Your task to perform on an android device: delete a single message in the gmail app Image 0: 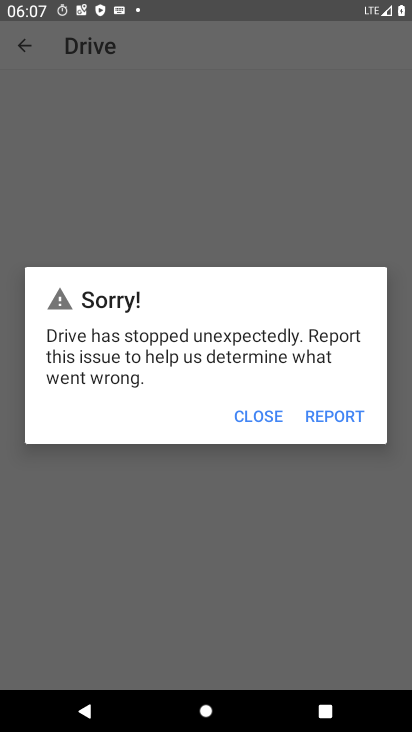
Step 0: press home button
Your task to perform on an android device: delete a single message in the gmail app Image 1: 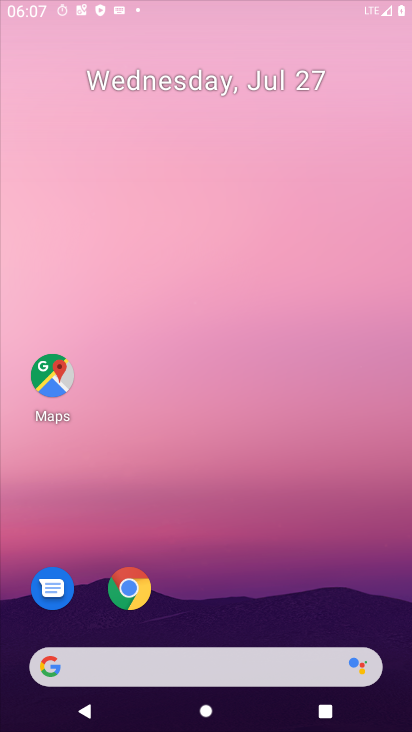
Step 1: drag from (331, 662) to (371, 84)
Your task to perform on an android device: delete a single message in the gmail app Image 2: 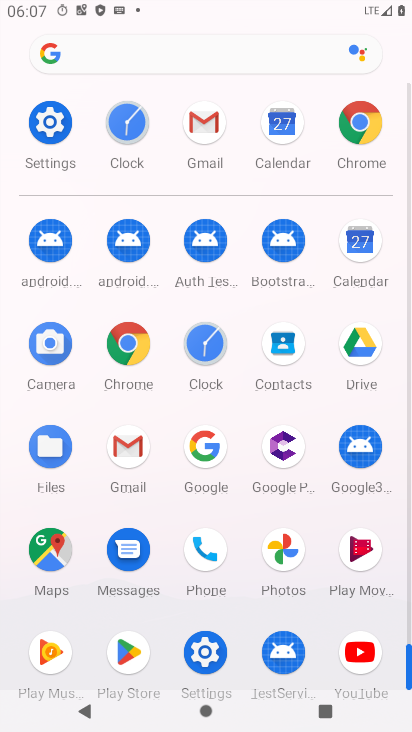
Step 2: click (132, 445)
Your task to perform on an android device: delete a single message in the gmail app Image 3: 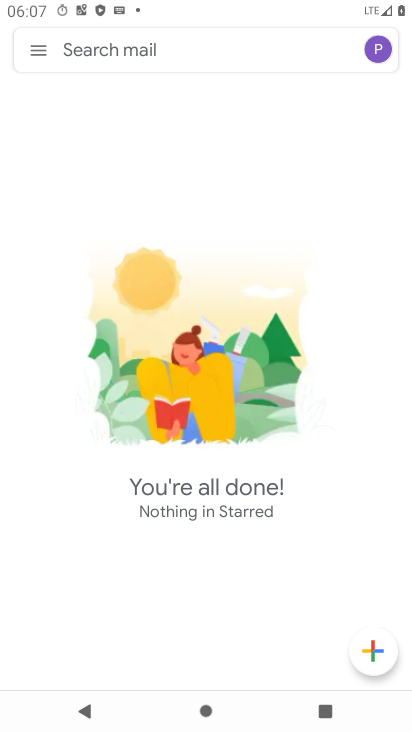
Step 3: click (43, 45)
Your task to perform on an android device: delete a single message in the gmail app Image 4: 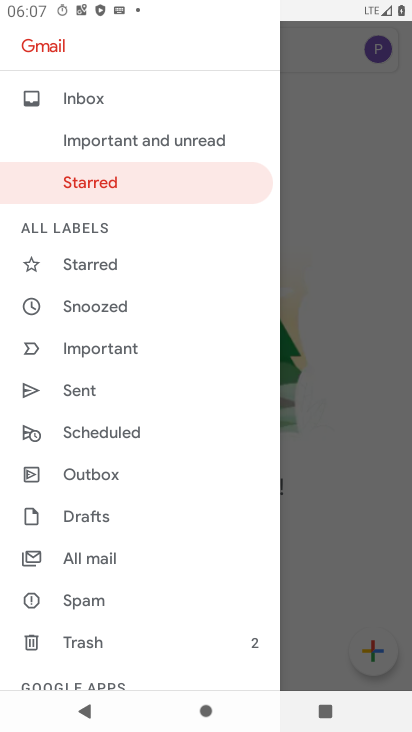
Step 4: task complete